Your task to perform on an android device: turn off location Image 0: 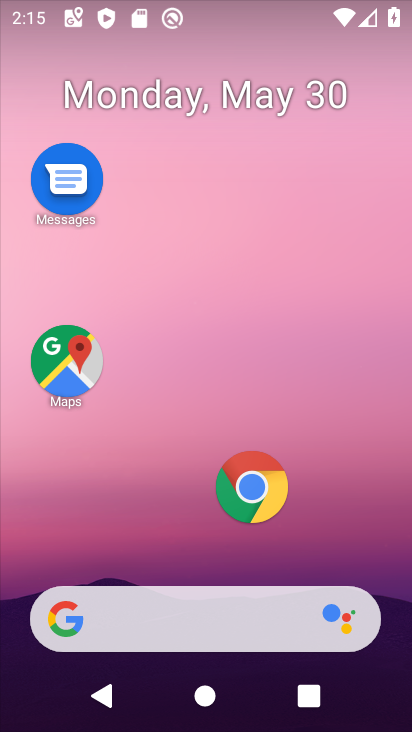
Step 0: drag from (300, 543) to (258, 131)
Your task to perform on an android device: turn off location Image 1: 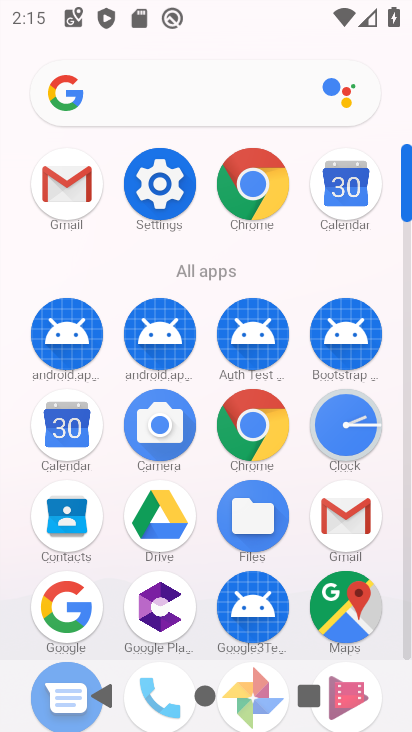
Step 1: click (160, 185)
Your task to perform on an android device: turn off location Image 2: 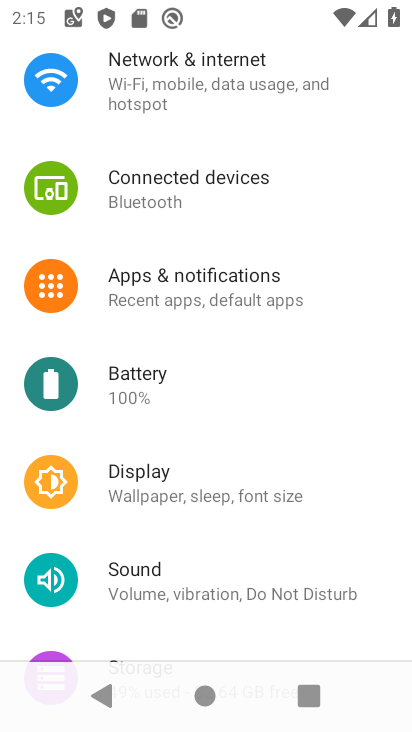
Step 2: drag from (158, 548) to (185, 255)
Your task to perform on an android device: turn off location Image 3: 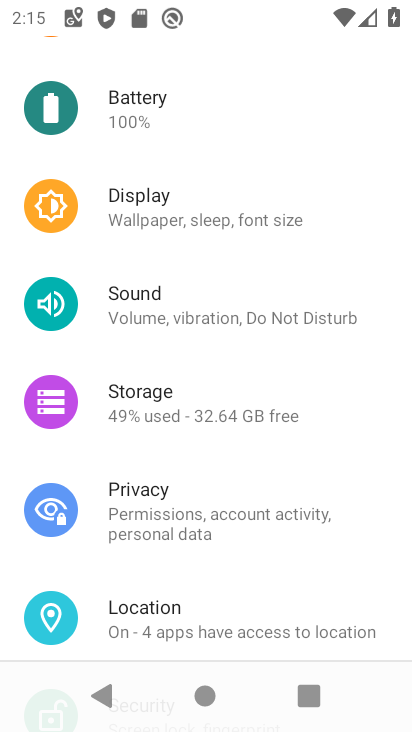
Step 3: click (204, 631)
Your task to perform on an android device: turn off location Image 4: 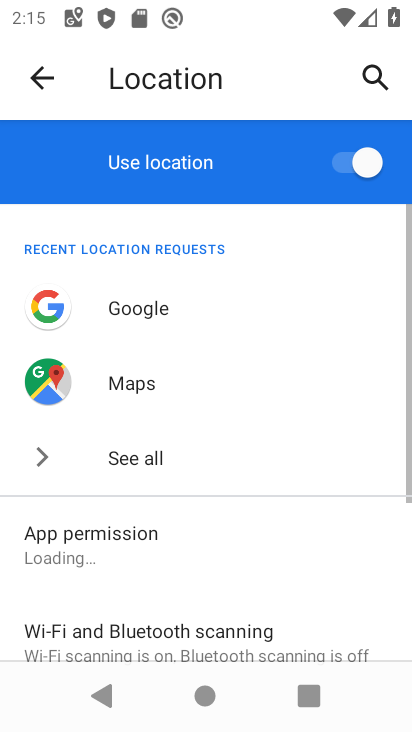
Step 4: drag from (204, 631) to (235, 365)
Your task to perform on an android device: turn off location Image 5: 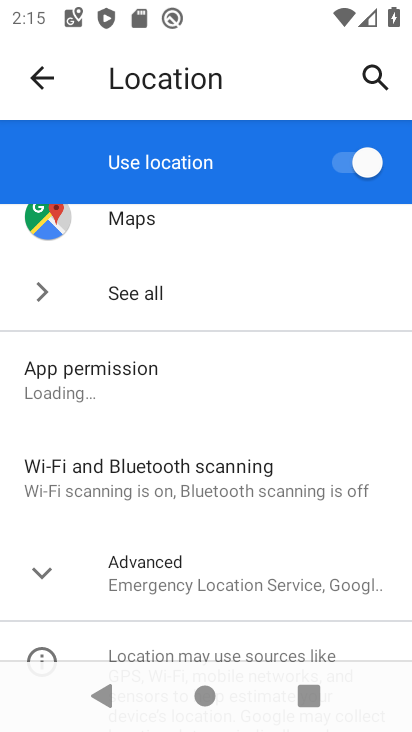
Step 5: drag from (218, 572) to (214, 272)
Your task to perform on an android device: turn off location Image 6: 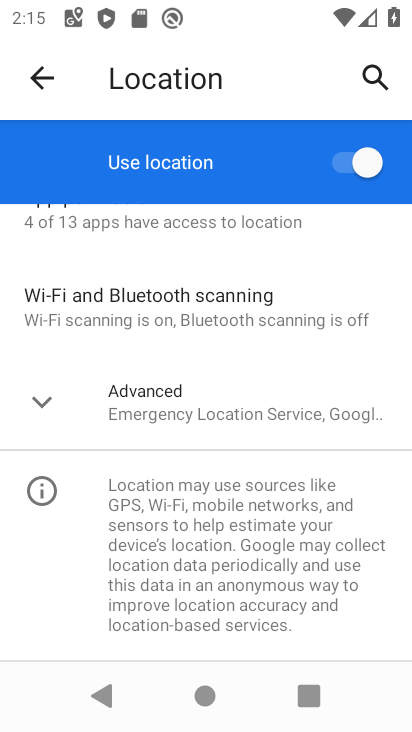
Step 6: click (340, 177)
Your task to perform on an android device: turn off location Image 7: 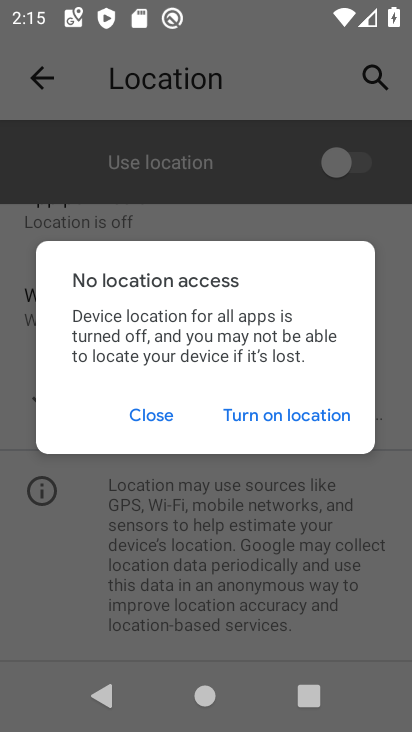
Step 7: task complete